Your task to perform on an android device: Open accessibility settings Image 0: 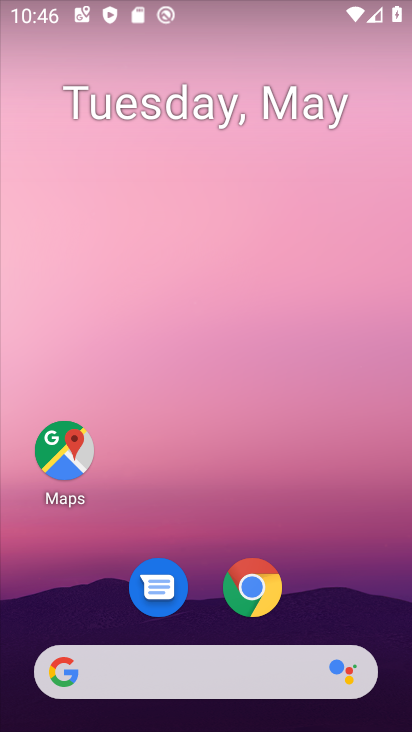
Step 0: drag from (346, 617) to (197, 26)
Your task to perform on an android device: Open accessibility settings Image 1: 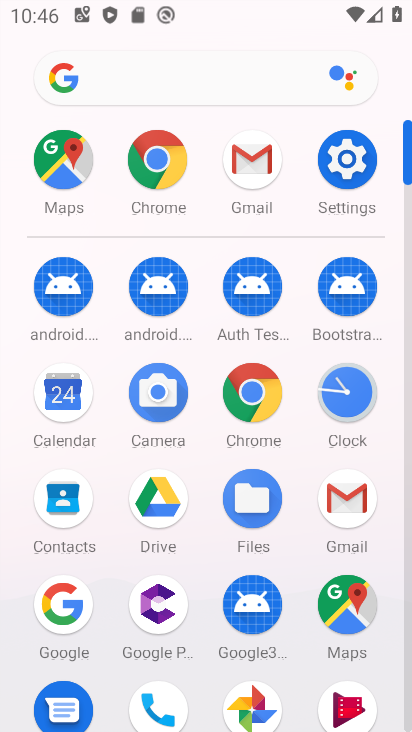
Step 1: drag from (10, 588) to (5, 270)
Your task to perform on an android device: Open accessibility settings Image 2: 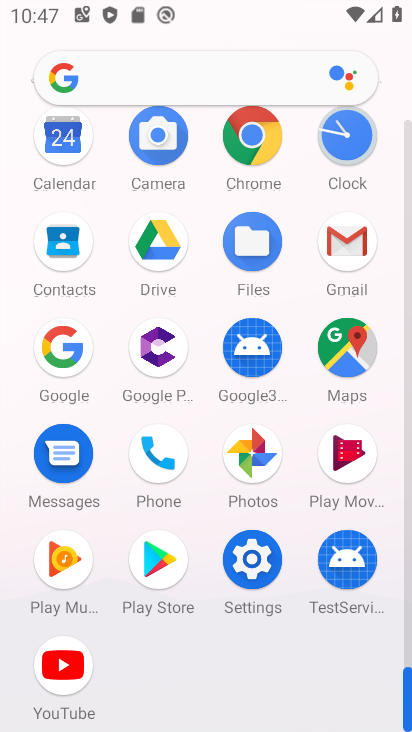
Step 2: click (250, 554)
Your task to perform on an android device: Open accessibility settings Image 3: 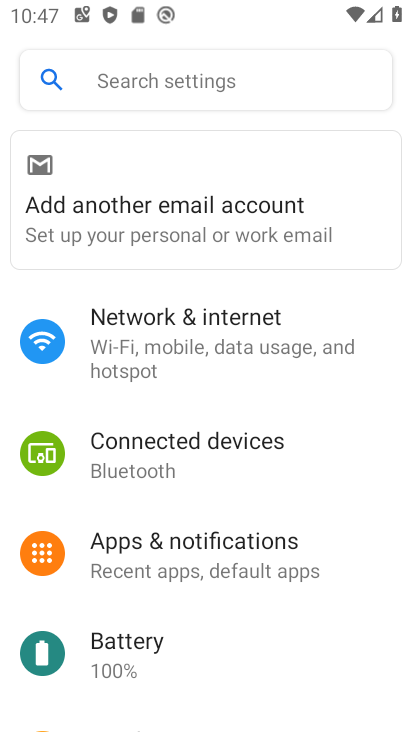
Step 3: drag from (280, 594) to (277, 190)
Your task to perform on an android device: Open accessibility settings Image 4: 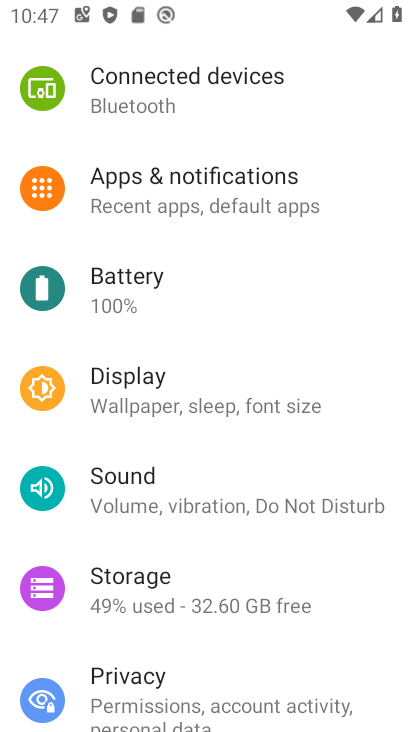
Step 4: drag from (279, 568) to (313, 146)
Your task to perform on an android device: Open accessibility settings Image 5: 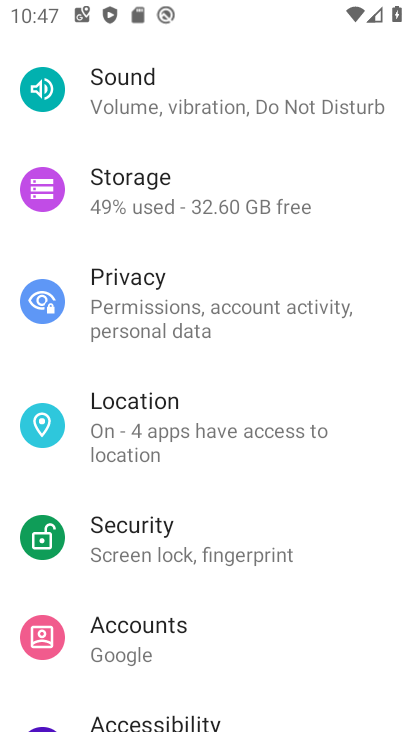
Step 5: drag from (264, 593) to (282, 129)
Your task to perform on an android device: Open accessibility settings Image 6: 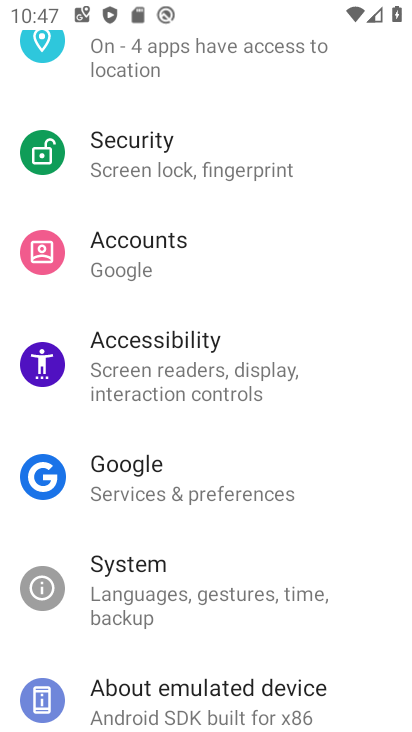
Step 6: drag from (203, 654) to (274, 251)
Your task to perform on an android device: Open accessibility settings Image 7: 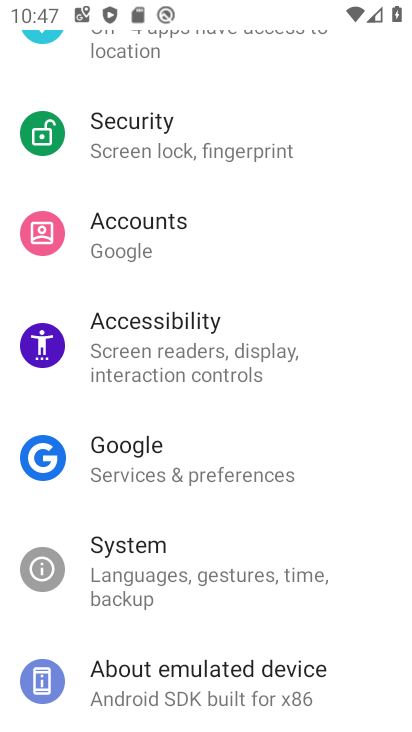
Step 7: click (198, 336)
Your task to perform on an android device: Open accessibility settings Image 8: 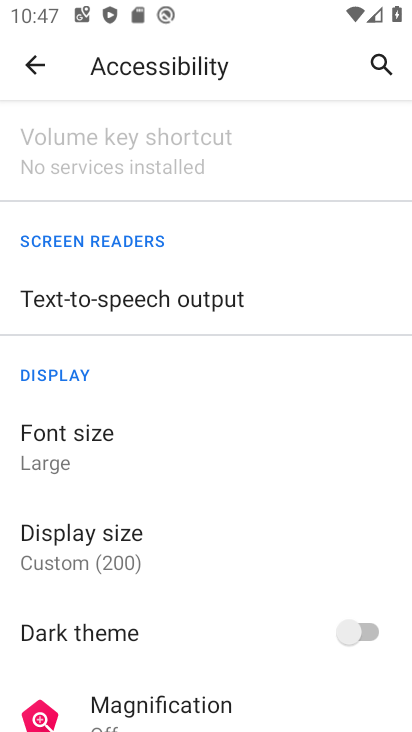
Step 8: task complete